Your task to perform on an android device: manage bookmarks in the chrome app Image 0: 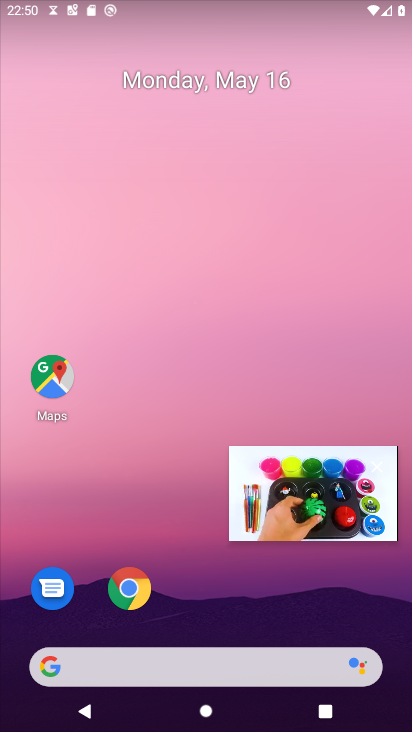
Step 0: click (329, 484)
Your task to perform on an android device: manage bookmarks in the chrome app Image 1: 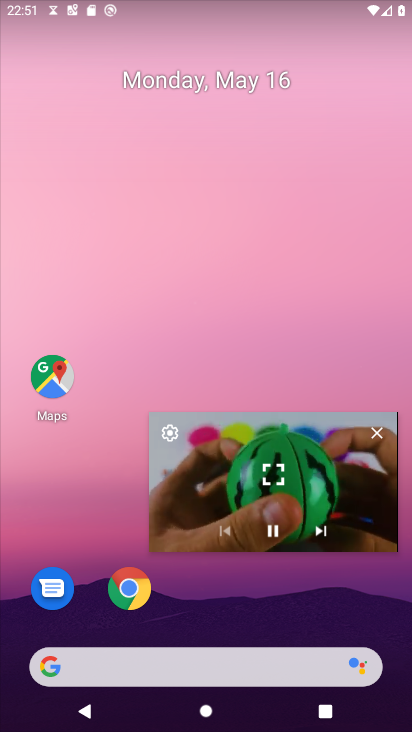
Step 1: click (373, 432)
Your task to perform on an android device: manage bookmarks in the chrome app Image 2: 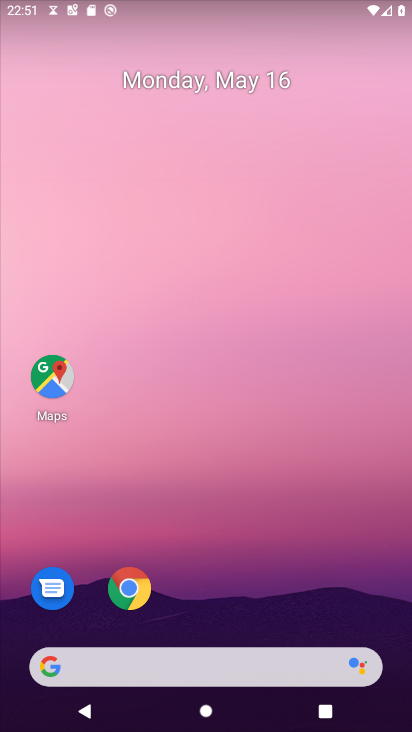
Step 2: click (123, 587)
Your task to perform on an android device: manage bookmarks in the chrome app Image 3: 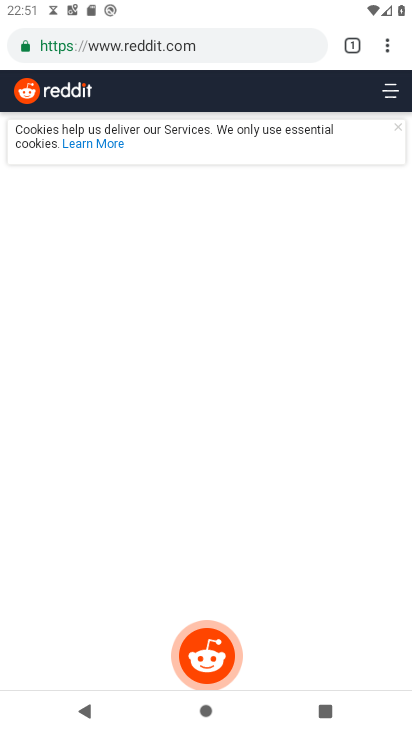
Step 3: click (389, 43)
Your task to perform on an android device: manage bookmarks in the chrome app Image 4: 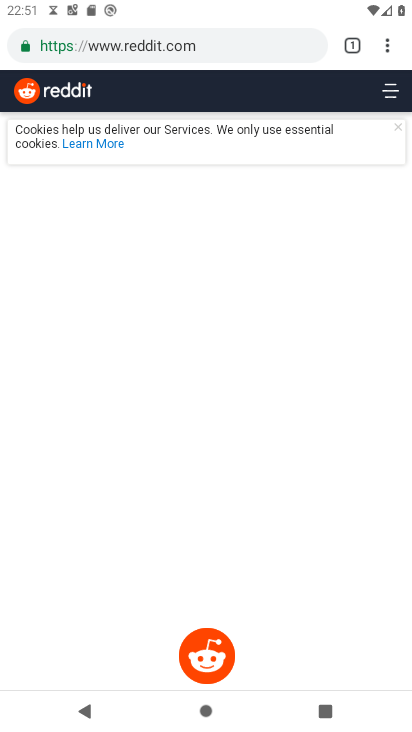
Step 4: click (383, 45)
Your task to perform on an android device: manage bookmarks in the chrome app Image 5: 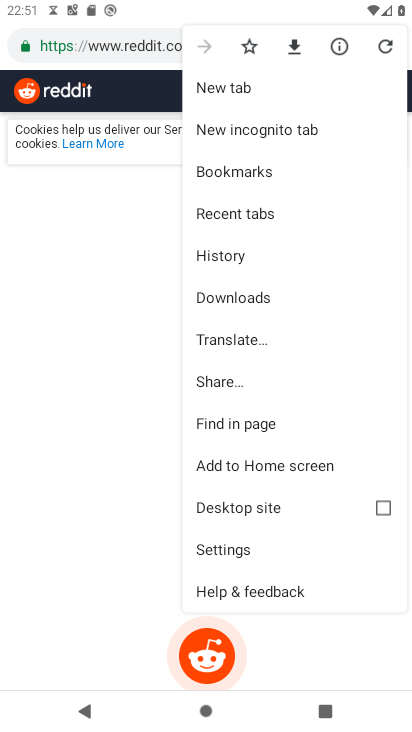
Step 5: click (287, 165)
Your task to perform on an android device: manage bookmarks in the chrome app Image 6: 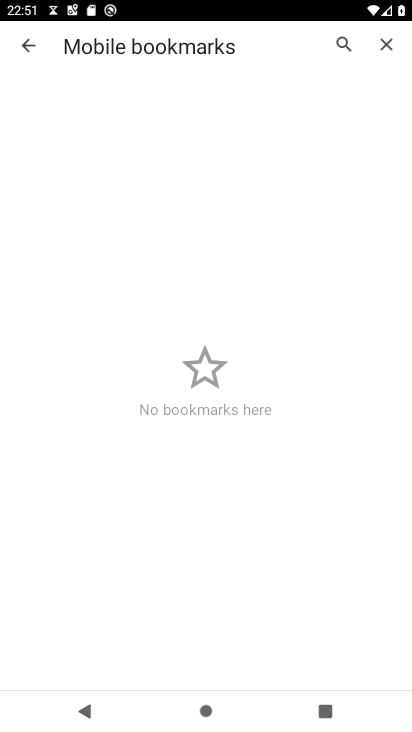
Step 6: task complete